Your task to perform on an android device: set an alarm Image 0: 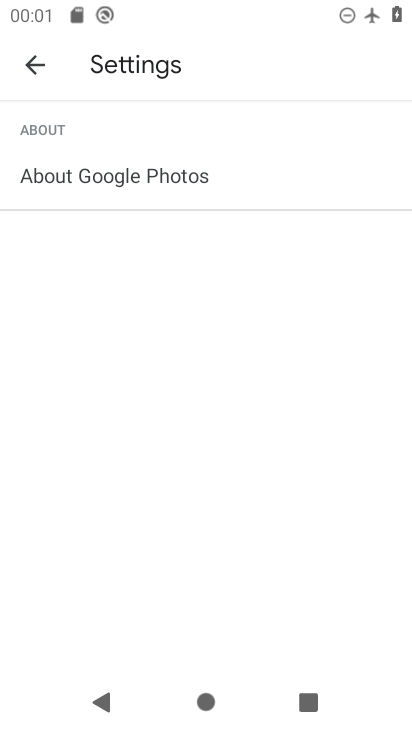
Step 0: press home button
Your task to perform on an android device: set an alarm Image 1: 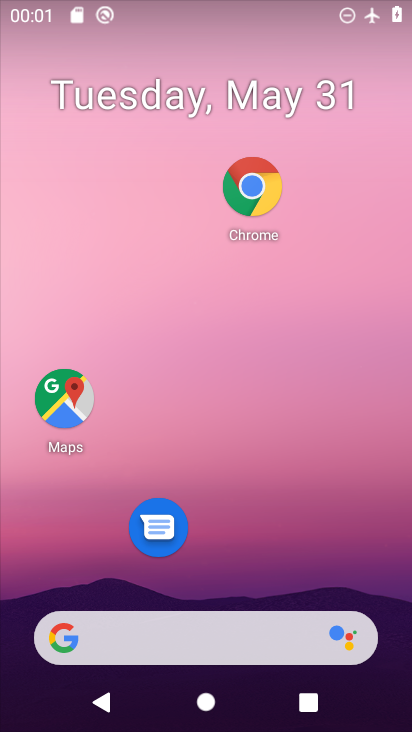
Step 1: drag from (261, 521) to (288, 209)
Your task to perform on an android device: set an alarm Image 2: 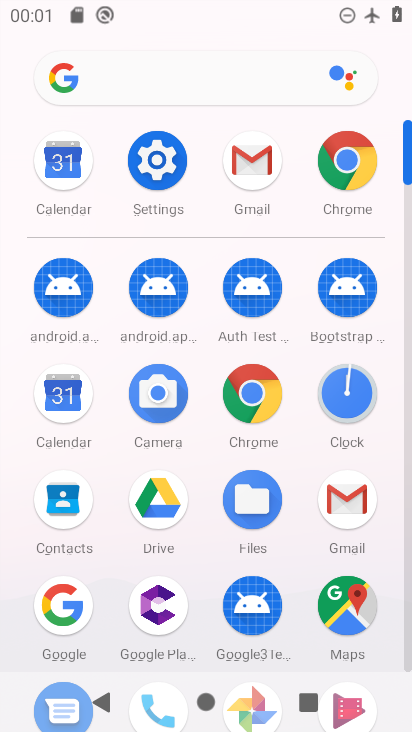
Step 2: click (352, 391)
Your task to perform on an android device: set an alarm Image 3: 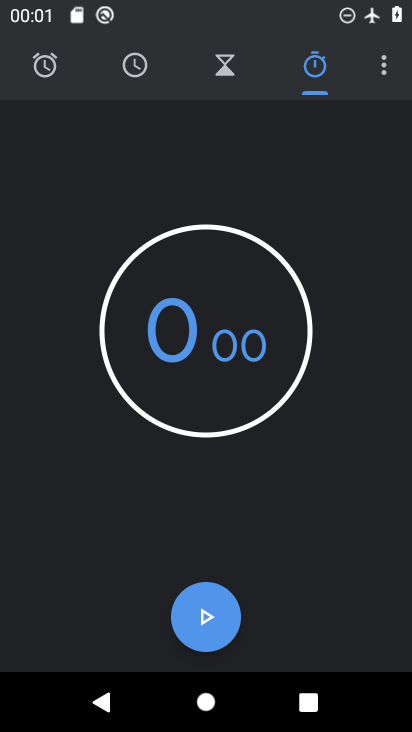
Step 3: click (47, 59)
Your task to perform on an android device: set an alarm Image 4: 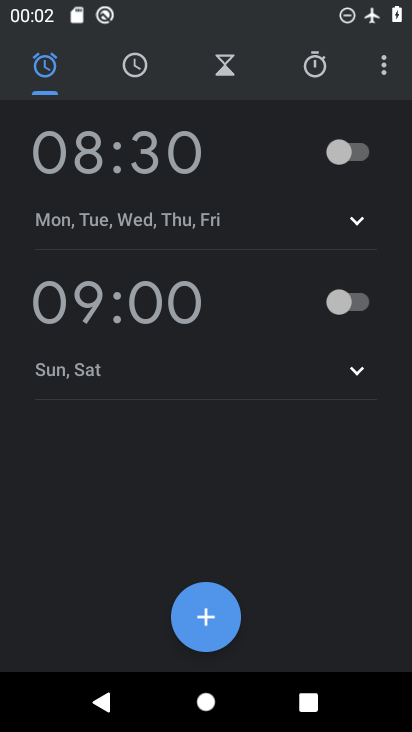
Step 4: task complete